Your task to perform on an android device: Open Youtube and go to "Your channel" Image 0: 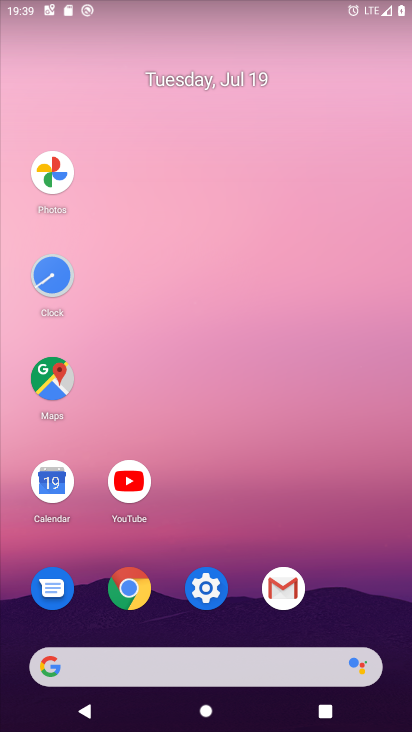
Step 0: click (119, 477)
Your task to perform on an android device: Open Youtube and go to "Your channel" Image 1: 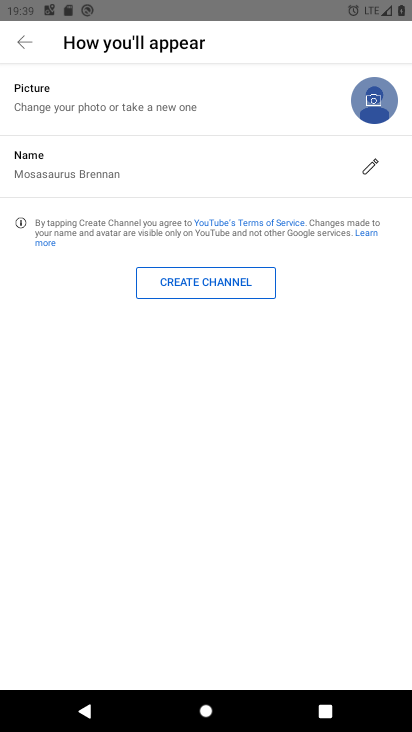
Step 1: task complete